Your task to perform on an android device: What's the weather going to be tomorrow? Image 0: 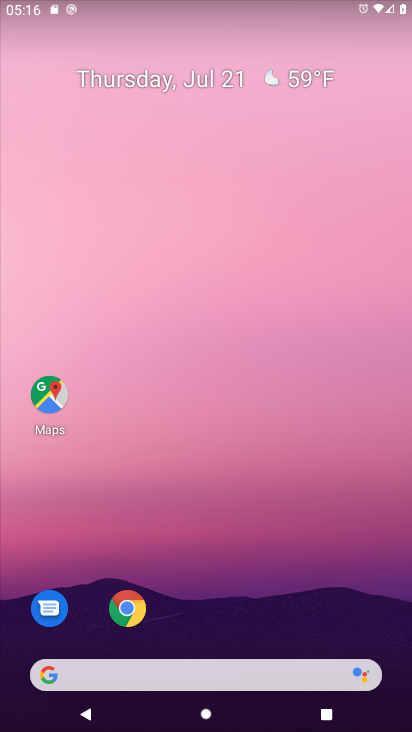
Step 0: drag from (241, 617) to (253, 205)
Your task to perform on an android device: What's the weather going to be tomorrow? Image 1: 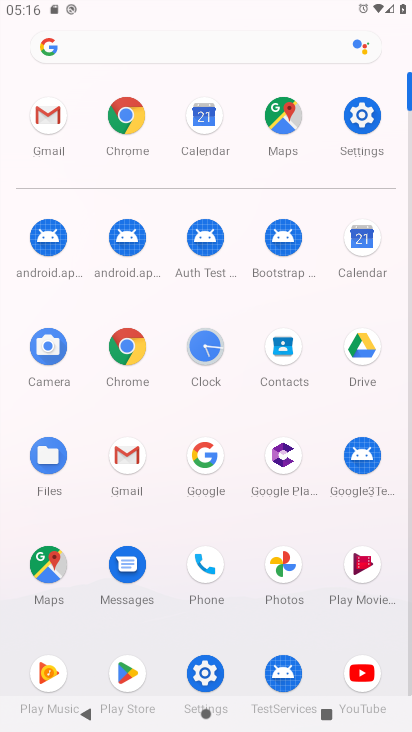
Step 1: click (127, 352)
Your task to perform on an android device: What's the weather going to be tomorrow? Image 2: 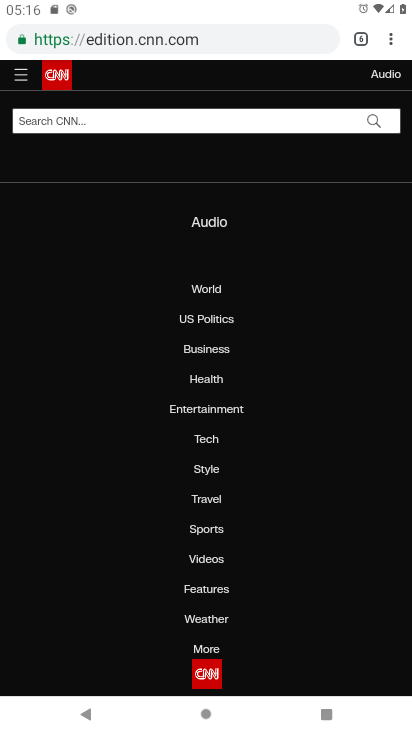
Step 2: click (166, 45)
Your task to perform on an android device: What's the weather going to be tomorrow? Image 3: 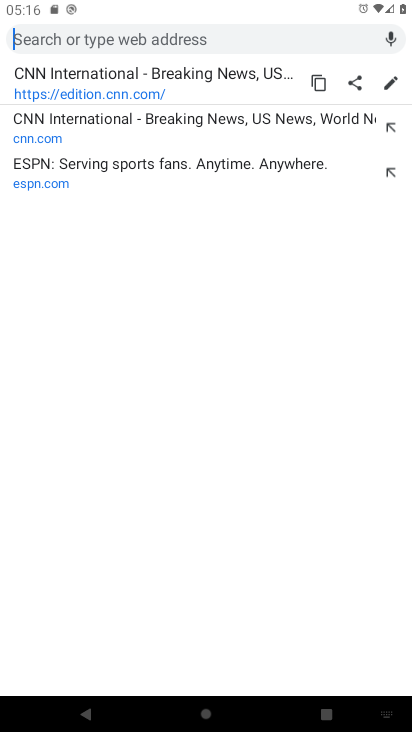
Step 3: type "weather going to be tomorrow"
Your task to perform on an android device: What's the weather going to be tomorrow? Image 4: 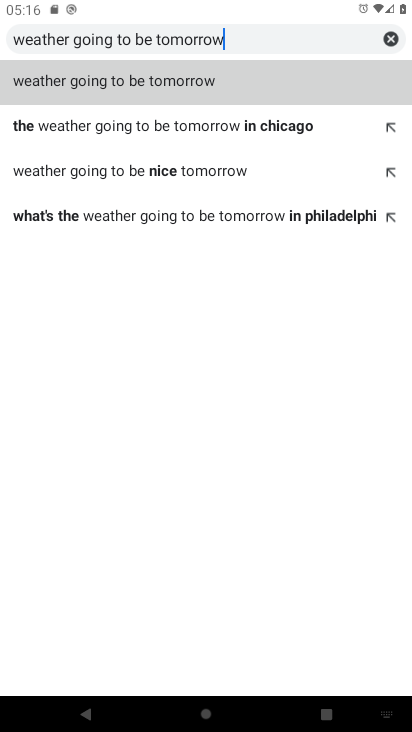
Step 4: click (71, 76)
Your task to perform on an android device: What's the weather going to be tomorrow? Image 5: 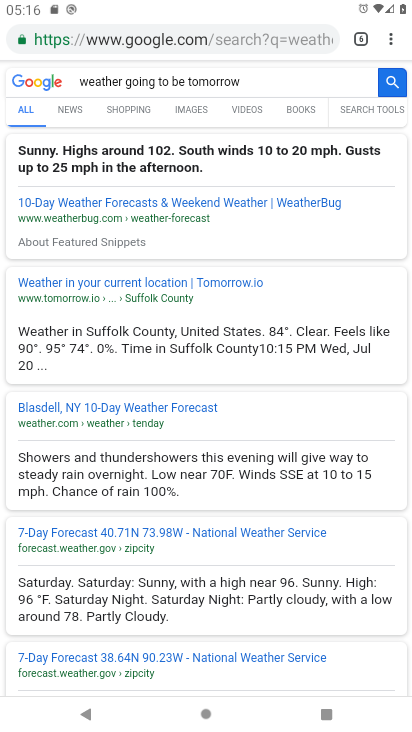
Step 5: task complete